Your task to perform on an android device: How much does the Vizio TV cost? Image 0: 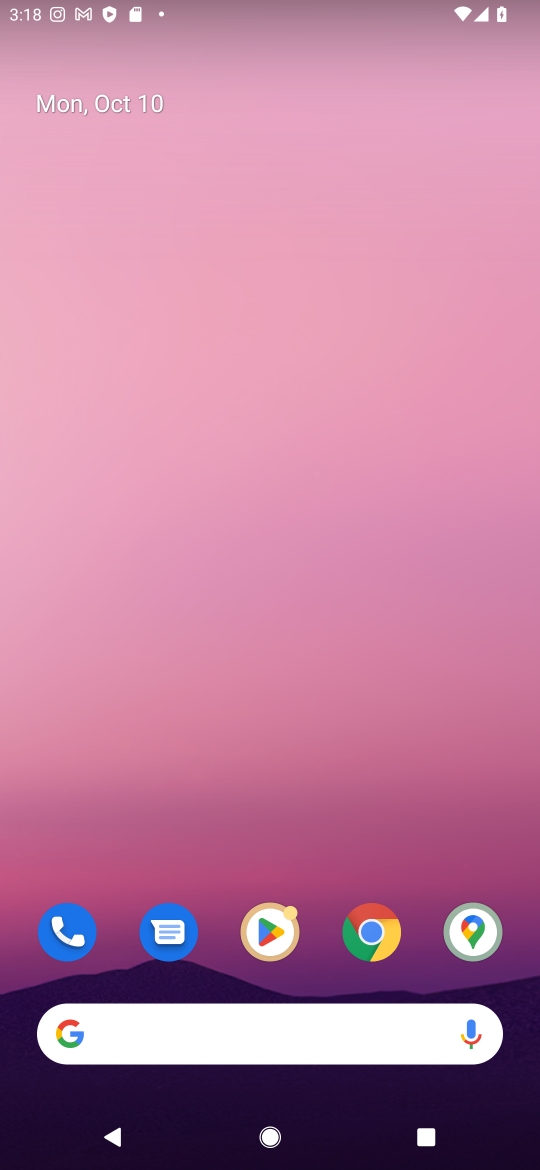
Step 0: press home button
Your task to perform on an android device: How much does the Vizio TV cost? Image 1: 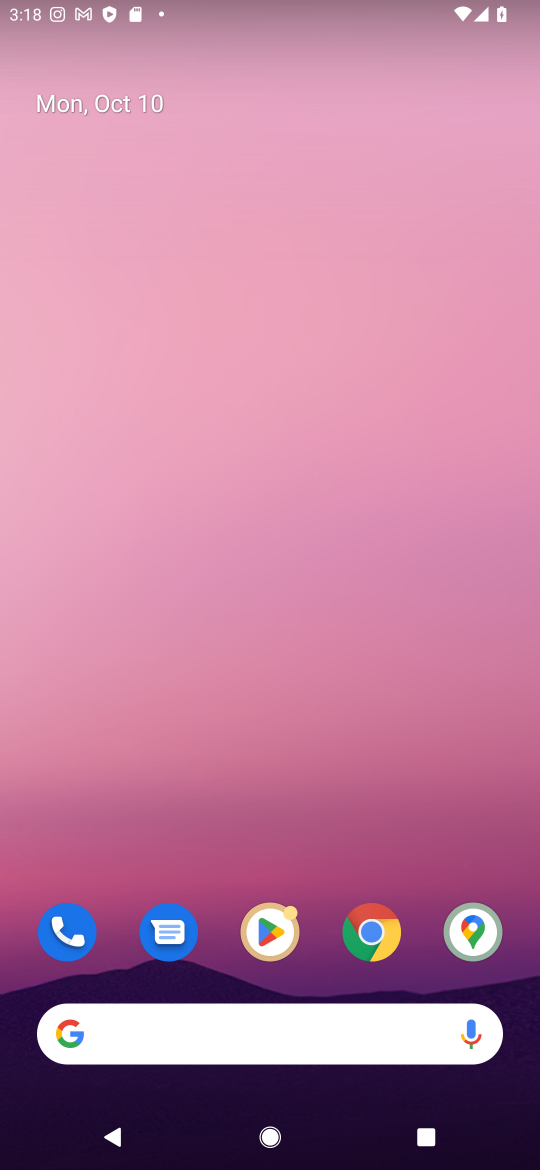
Step 1: click (291, 1032)
Your task to perform on an android device: How much does the Vizio TV cost? Image 2: 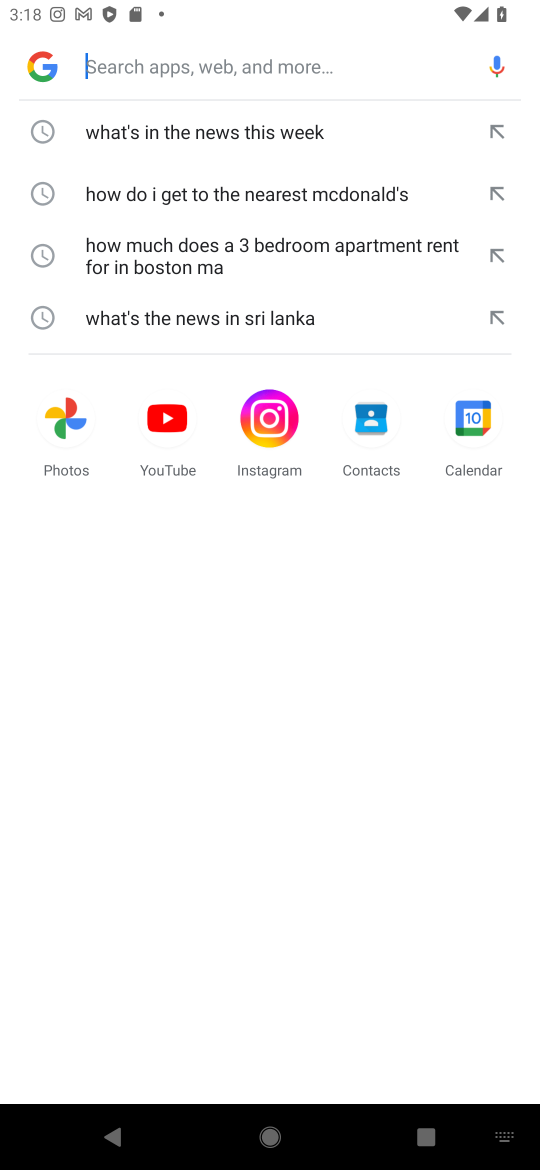
Step 2: type "How much does the Vizio TV cost"
Your task to perform on an android device: How much does the Vizio TV cost? Image 3: 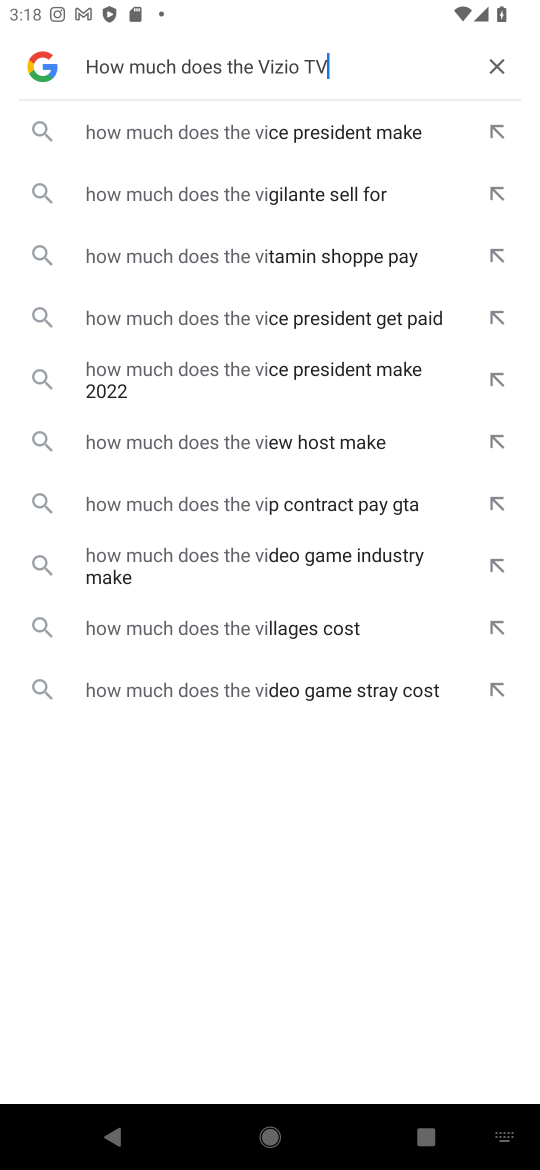
Step 3: press enter
Your task to perform on an android device: How much does the Vizio TV cost? Image 4: 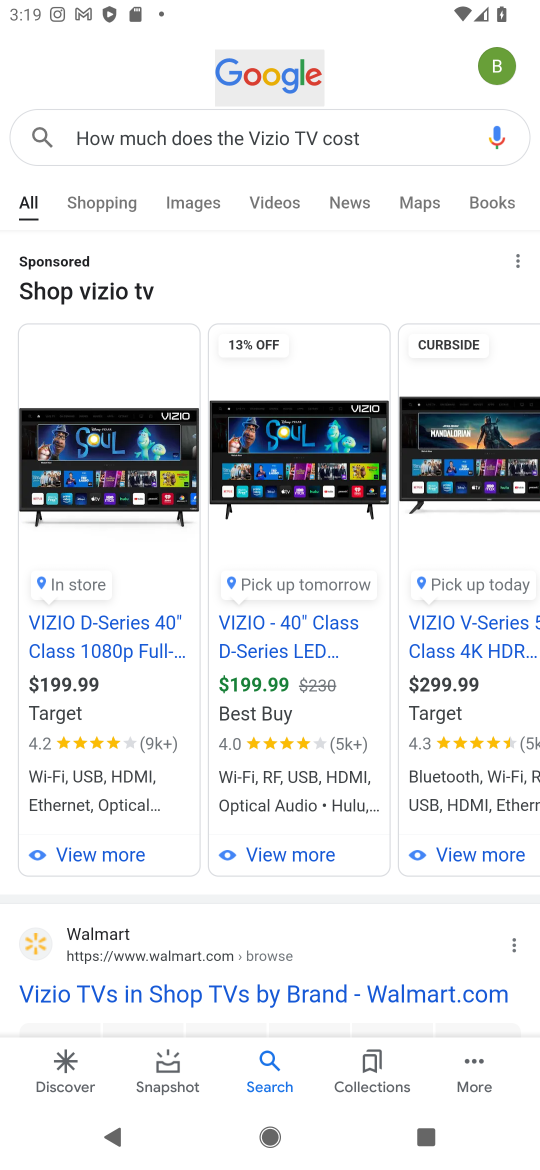
Step 4: task complete